Your task to perform on an android device: set an alarm Image 0: 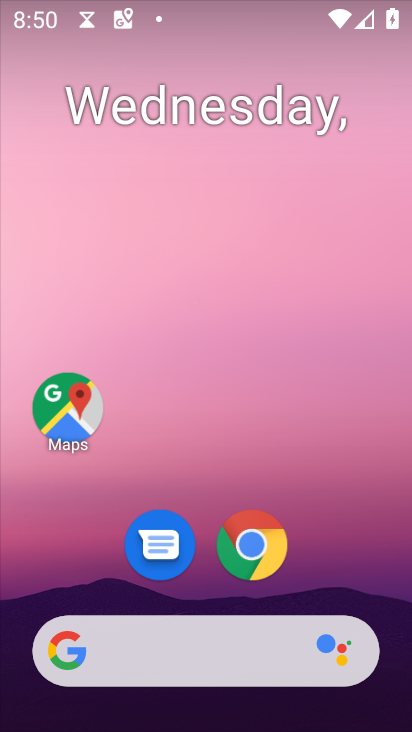
Step 0: drag from (165, 635) to (311, 92)
Your task to perform on an android device: set an alarm Image 1: 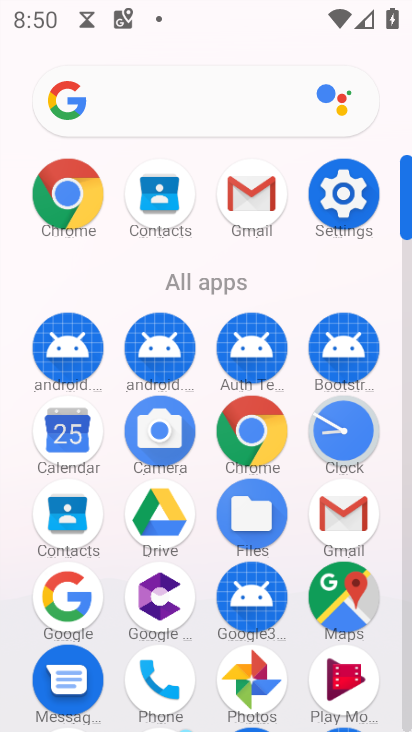
Step 1: click (339, 449)
Your task to perform on an android device: set an alarm Image 2: 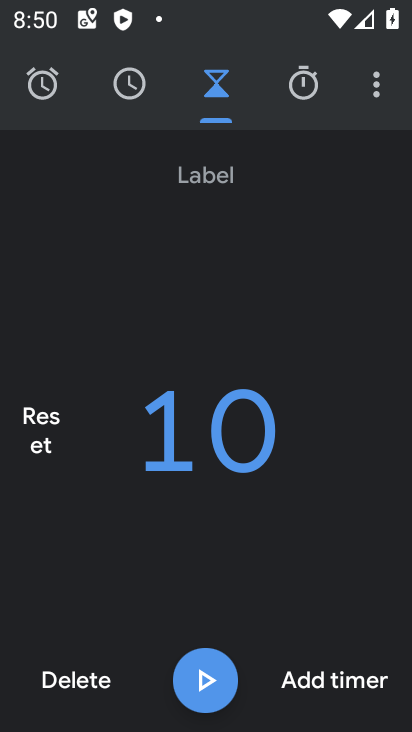
Step 2: click (34, 88)
Your task to perform on an android device: set an alarm Image 3: 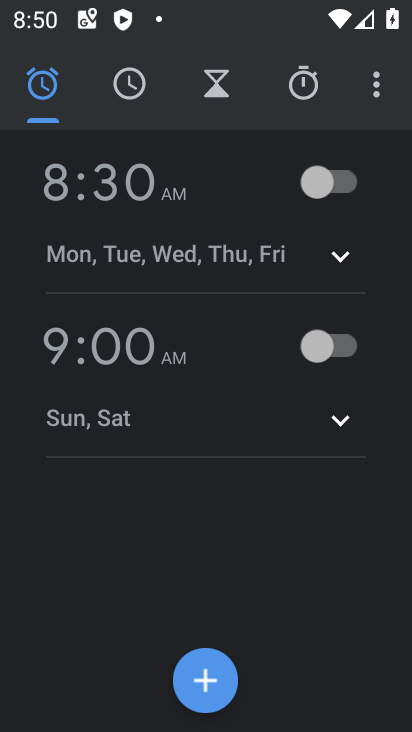
Step 3: click (336, 188)
Your task to perform on an android device: set an alarm Image 4: 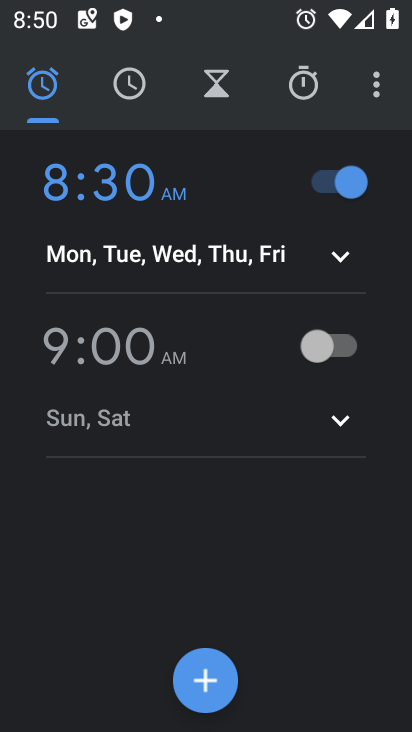
Step 4: task complete